Your task to perform on an android device: show emergency info Image 0: 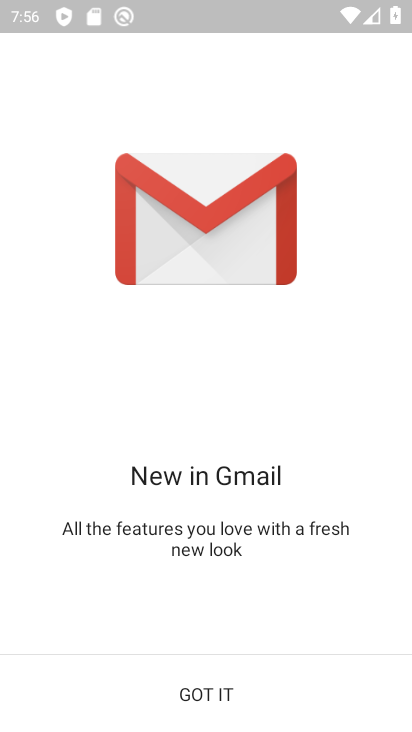
Step 0: press home button
Your task to perform on an android device: show emergency info Image 1: 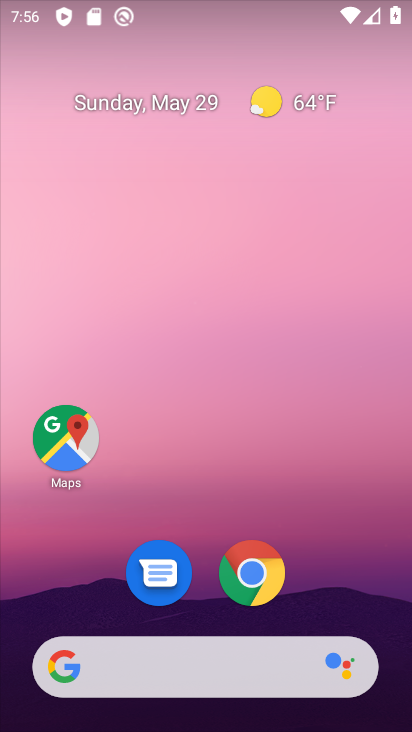
Step 1: drag from (75, 613) to (249, 144)
Your task to perform on an android device: show emergency info Image 2: 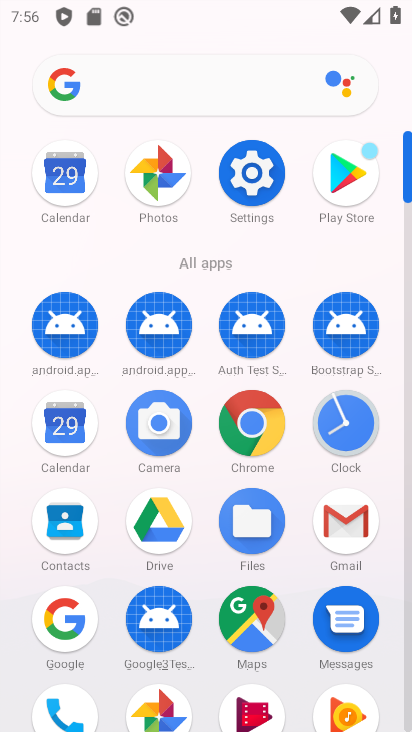
Step 2: drag from (186, 610) to (291, 280)
Your task to perform on an android device: show emergency info Image 3: 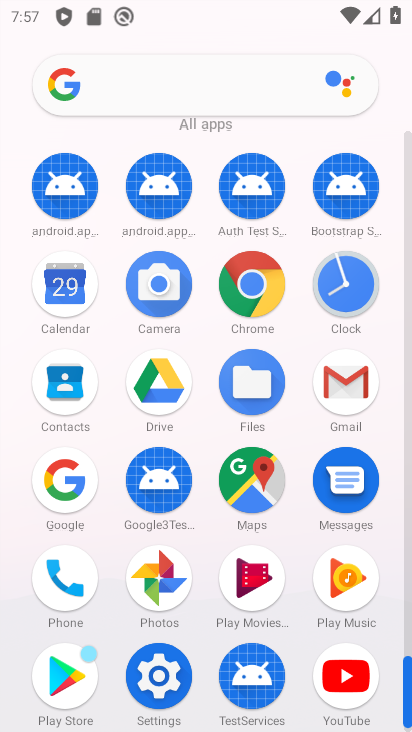
Step 3: click (170, 679)
Your task to perform on an android device: show emergency info Image 4: 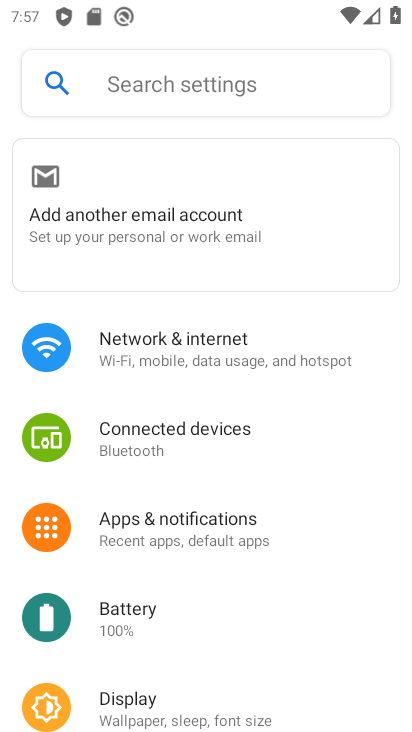
Step 4: drag from (168, 672) to (376, 132)
Your task to perform on an android device: show emergency info Image 5: 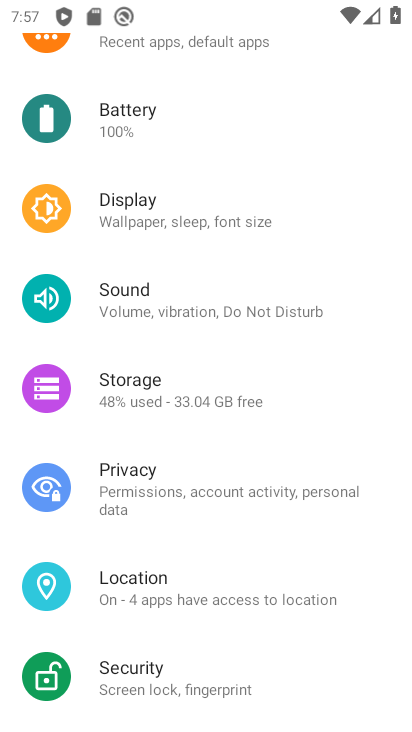
Step 5: drag from (185, 626) to (370, 110)
Your task to perform on an android device: show emergency info Image 6: 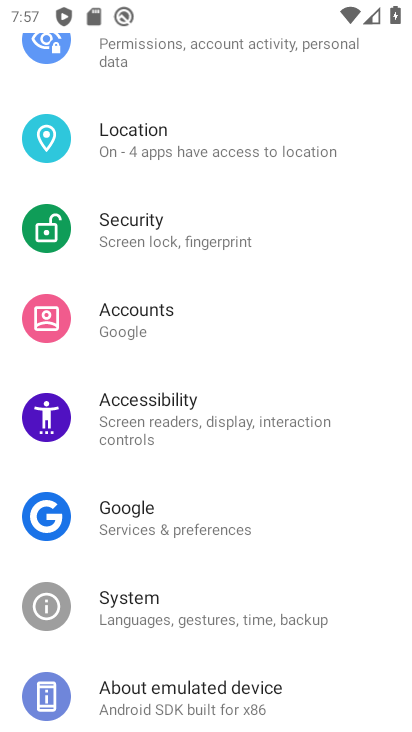
Step 6: drag from (160, 609) to (291, 156)
Your task to perform on an android device: show emergency info Image 7: 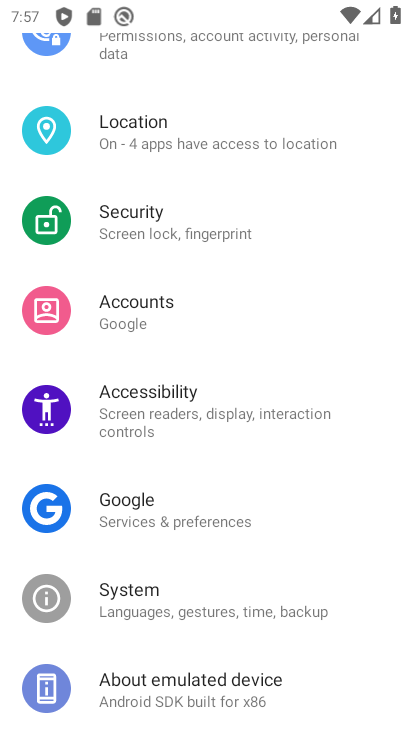
Step 7: click (245, 704)
Your task to perform on an android device: show emergency info Image 8: 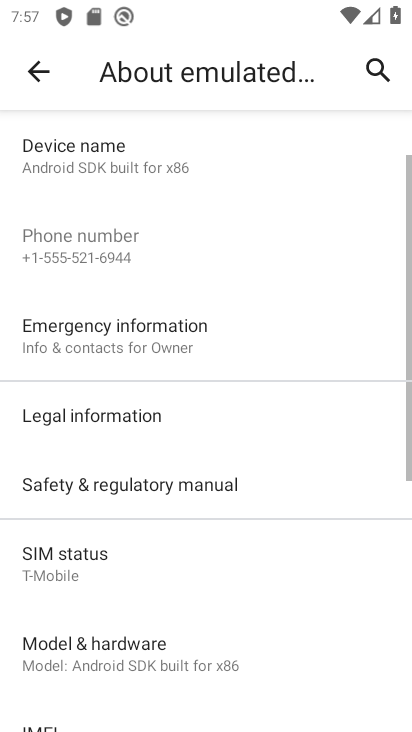
Step 8: click (225, 361)
Your task to perform on an android device: show emergency info Image 9: 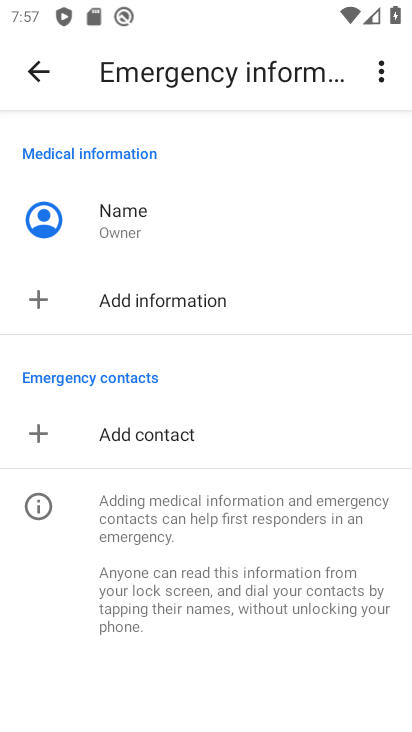
Step 9: task complete